Your task to perform on an android device: Go to Google Image 0: 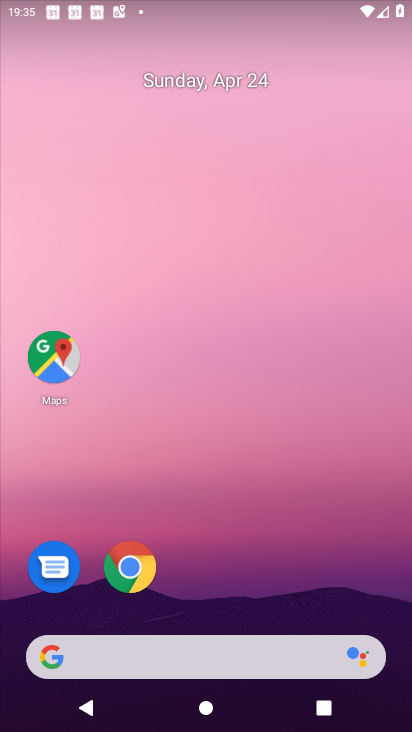
Step 0: drag from (252, 685) to (236, 109)
Your task to perform on an android device: Go to Google Image 1: 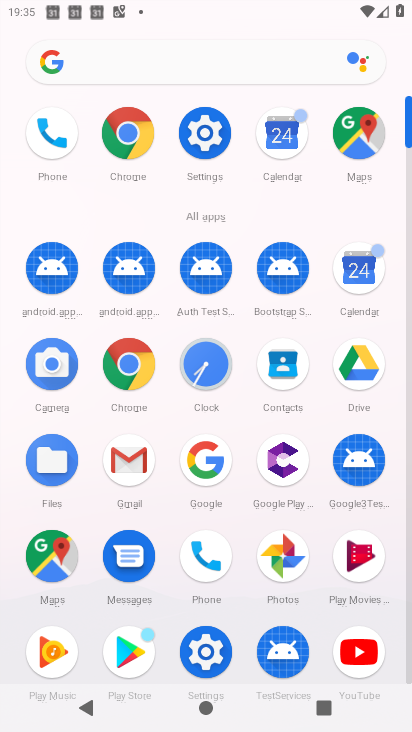
Step 1: click (135, 130)
Your task to perform on an android device: Go to Google Image 2: 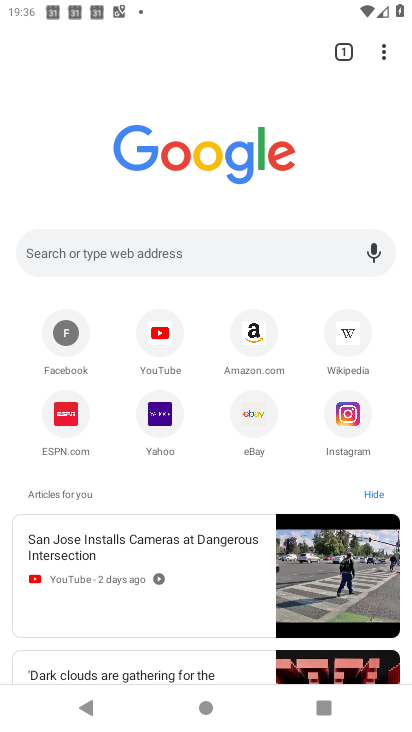
Step 2: click (155, 253)
Your task to perform on an android device: Go to Google Image 3: 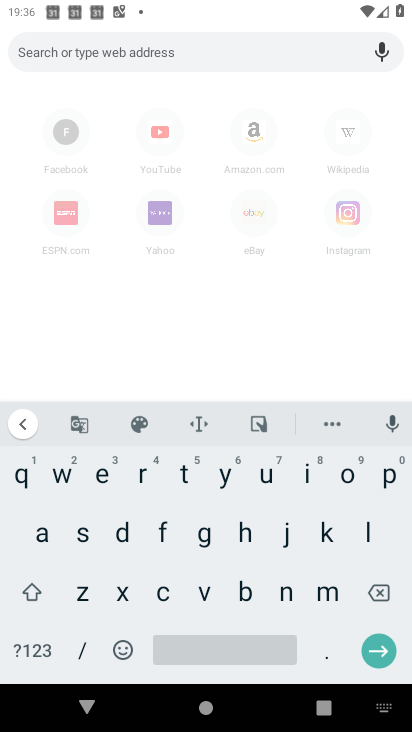
Step 3: task complete